Your task to perform on an android device: Show me productivity apps on the Play Store Image 0: 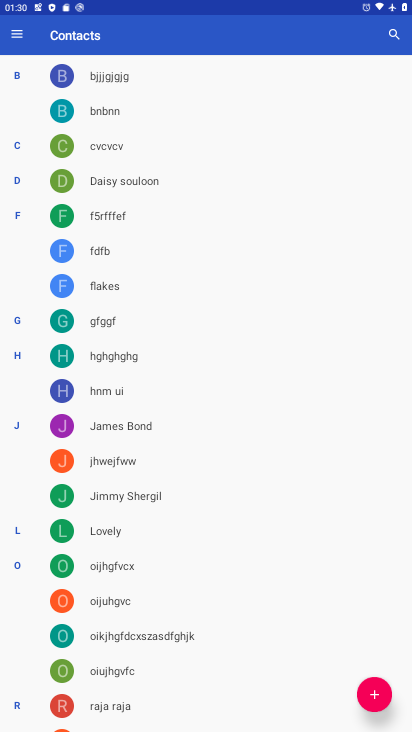
Step 0: press home button
Your task to perform on an android device: Show me productivity apps on the Play Store Image 1: 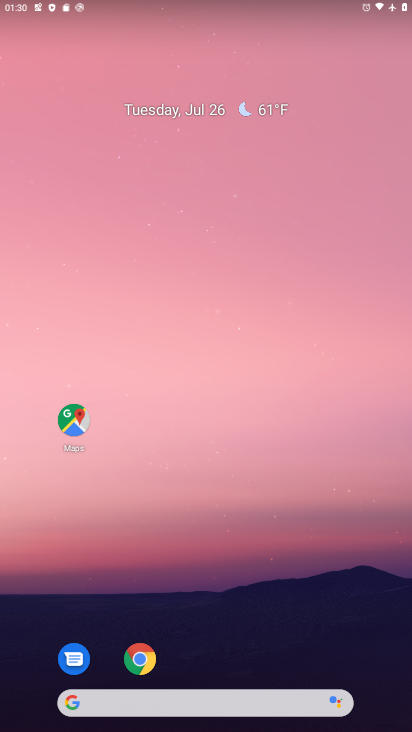
Step 1: drag from (260, 628) to (185, 112)
Your task to perform on an android device: Show me productivity apps on the Play Store Image 2: 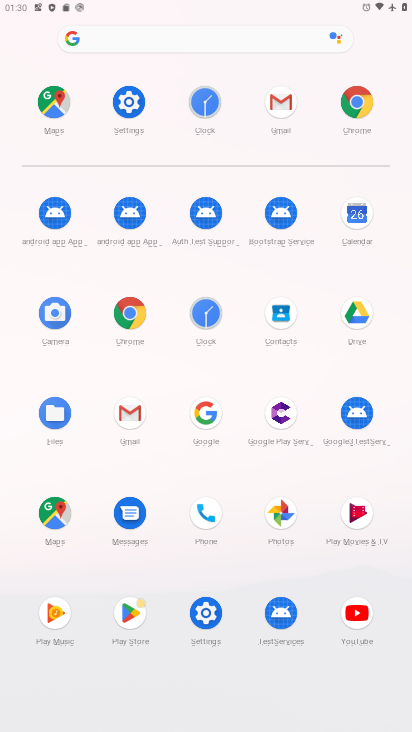
Step 2: click (128, 609)
Your task to perform on an android device: Show me productivity apps on the Play Store Image 3: 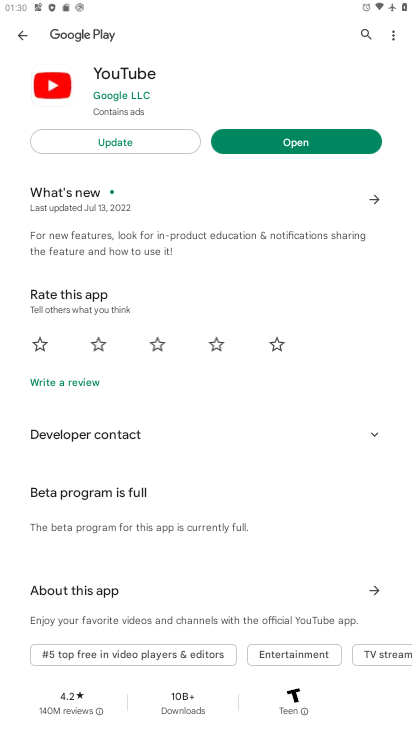
Step 3: click (25, 37)
Your task to perform on an android device: Show me productivity apps on the Play Store Image 4: 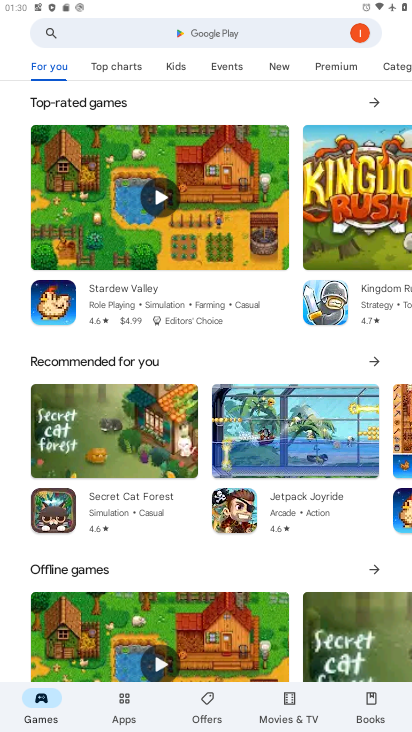
Step 4: click (126, 699)
Your task to perform on an android device: Show me productivity apps on the Play Store Image 5: 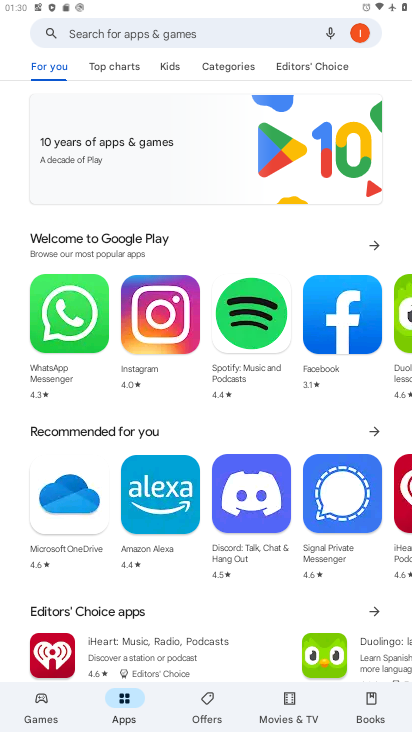
Step 5: task complete